Your task to perform on an android device: Open ESPN.com Image 0: 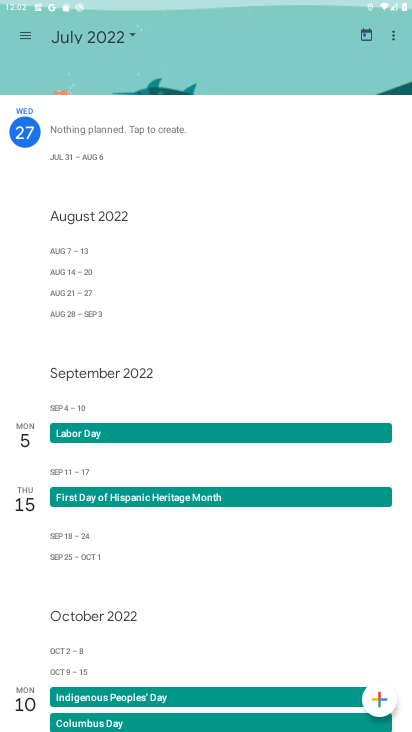
Step 0: press home button
Your task to perform on an android device: Open ESPN.com Image 1: 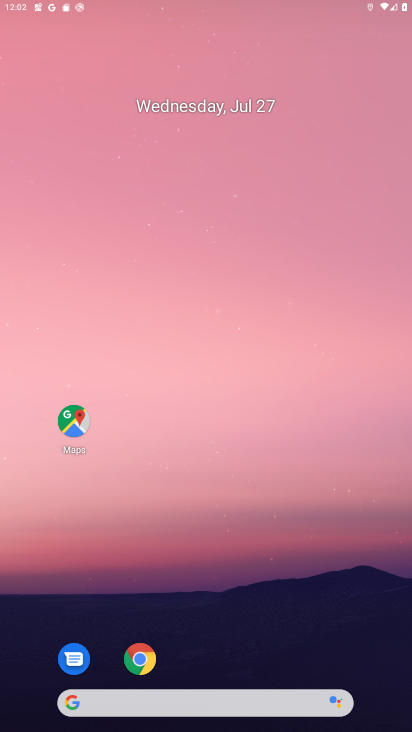
Step 1: drag from (252, 616) to (292, 40)
Your task to perform on an android device: Open ESPN.com Image 2: 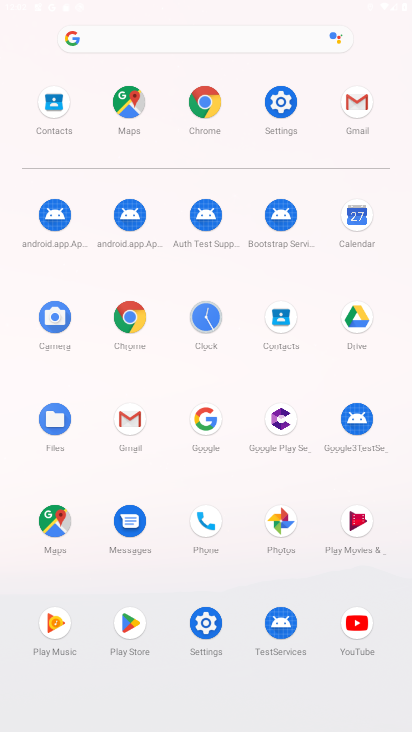
Step 2: click (130, 316)
Your task to perform on an android device: Open ESPN.com Image 3: 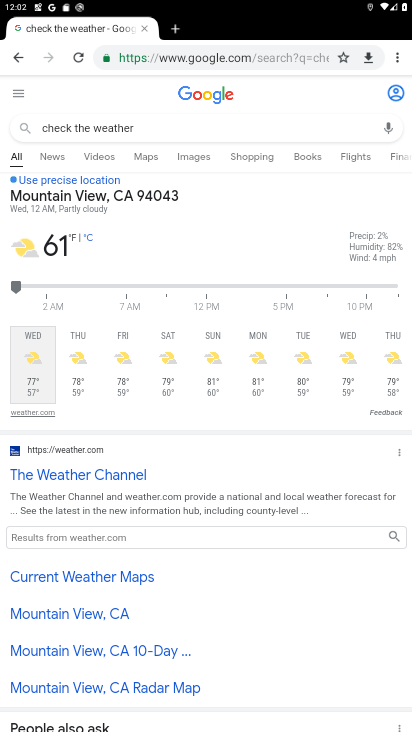
Step 3: click (266, 53)
Your task to perform on an android device: Open ESPN.com Image 4: 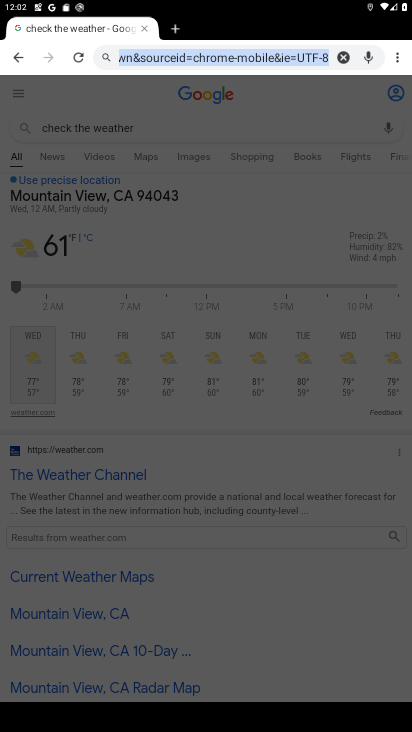
Step 4: type "espn.com"
Your task to perform on an android device: Open ESPN.com Image 5: 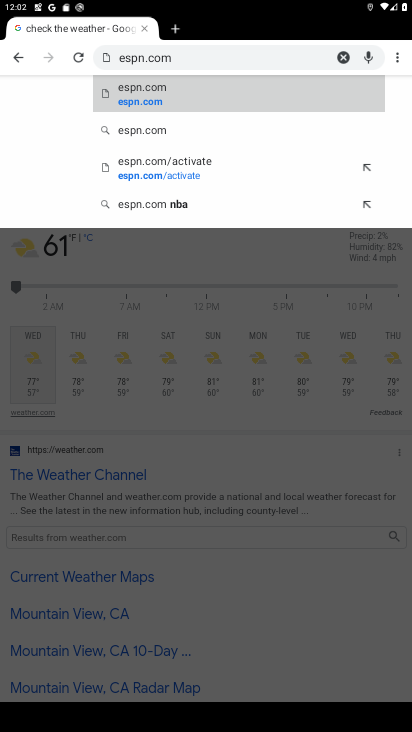
Step 5: click (182, 99)
Your task to perform on an android device: Open ESPN.com Image 6: 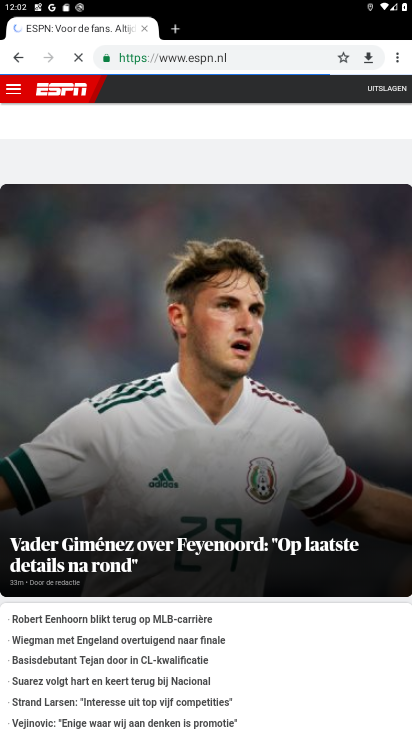
Step 6: task complete